Your task to perform on an android device: Go to accessibility settings Image 0: 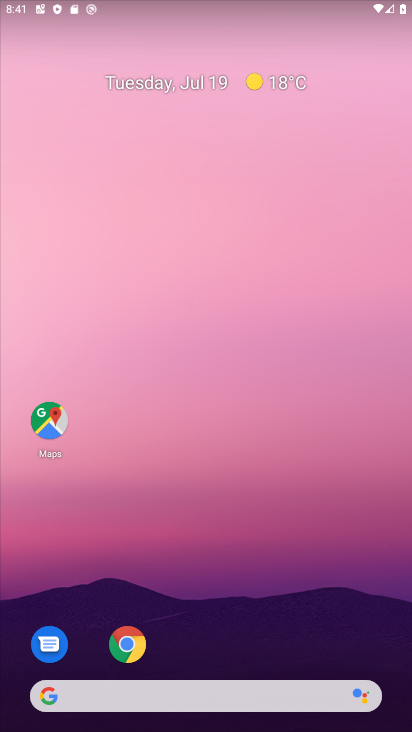
Step 0: drag from (203, 724) to (206, 256)
Your task to perform on an android device: Go to accessibility settings Image 1: 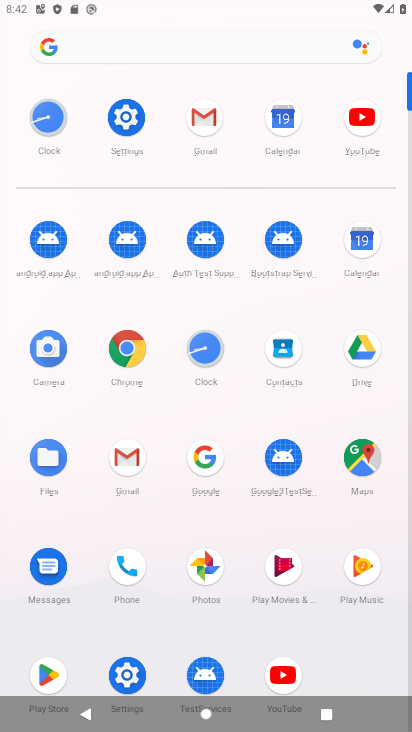
Step 1: click (124, 113)
Your task to perform on an android device: Go to accessibility settings Image 2: 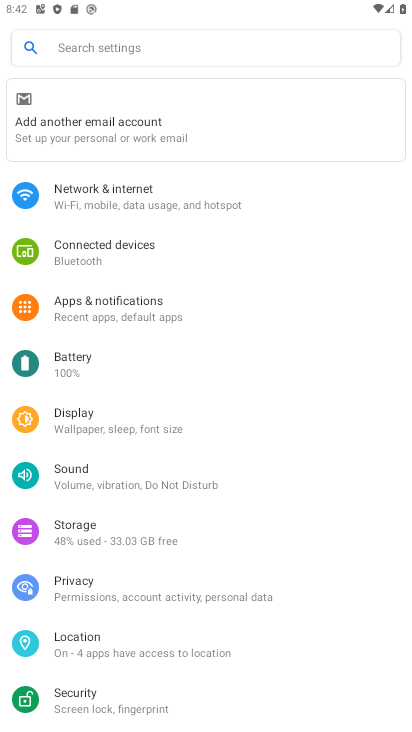
Step 2: drag from (147, 666) to (147, 378)
Your task to perform on an android device: Go to accessibility settings Image 3: 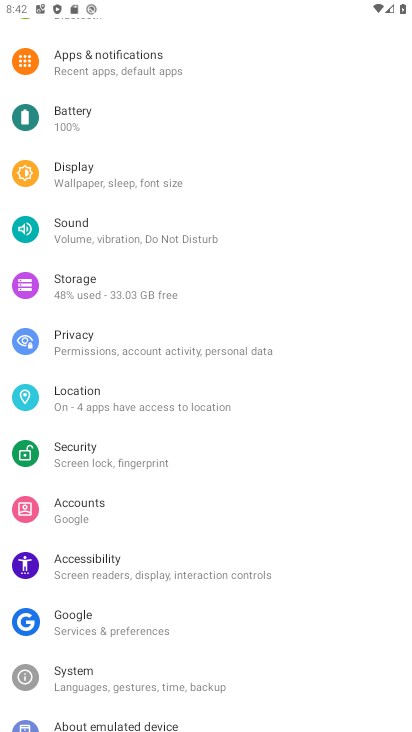
Step 3: click (82, 569)
Your task to perform on an android device: Go to accessibility settings Image 4: 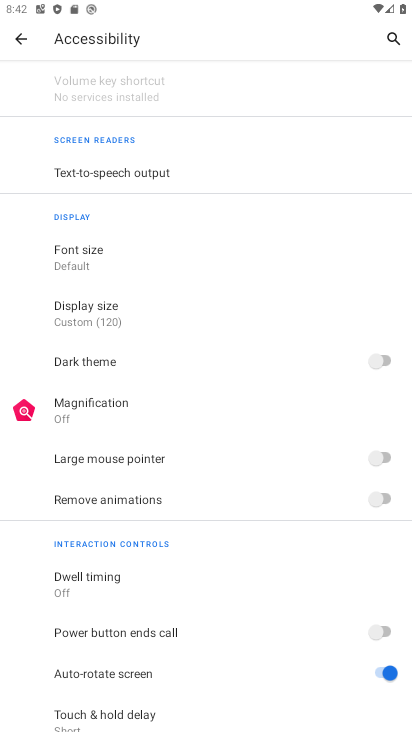
Step 4: task complete